Your task to perform on an android device: Go to wifi settings Image 0: 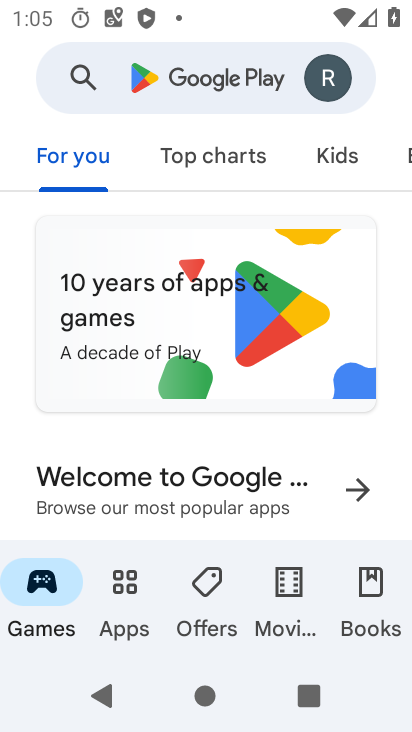
Step 0: press back button
Your task to perform on an android device: Go to wifi settings Image 1: 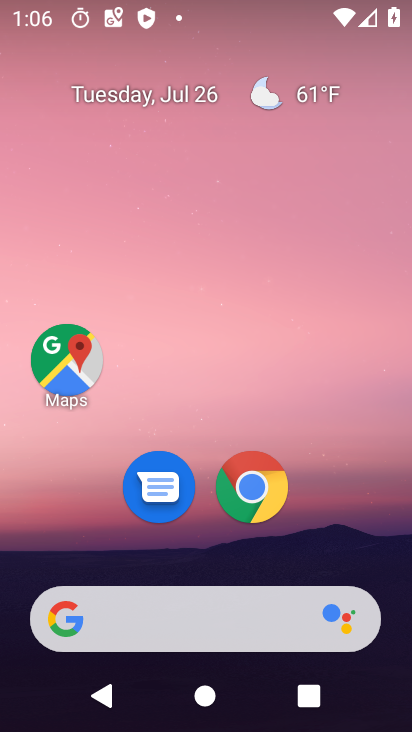
Step 1: drag from (139, 12) to (134, 512)
Your task to perform on an android device: Go to wifi settings Image 2: 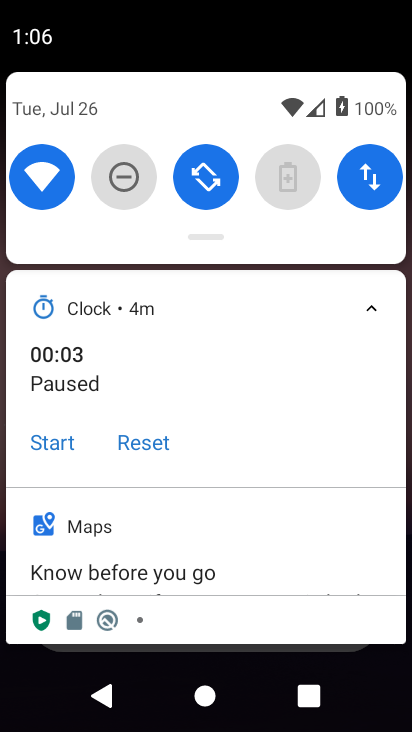
Step 2: click (42, 179)
Your task to perform on an android device: Go to wifi settings Image 3: 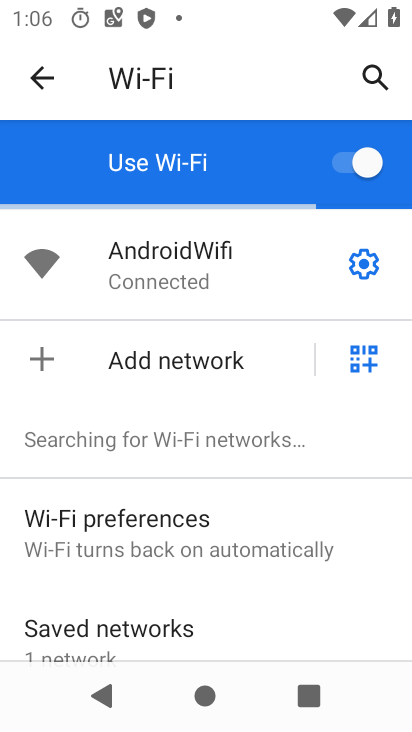
Step 3: task complete